Your task to perform on an android device: open chrome and create a bookmark for the current page Image 0: 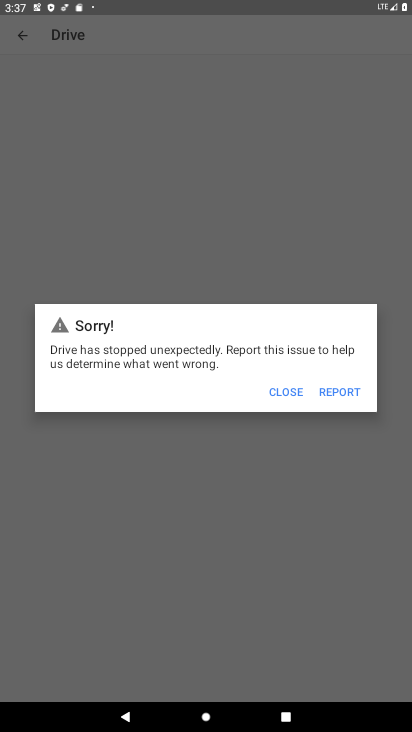
Step 0: press home button
Your task to perform on an android device: open chrome and create a bookmark for the current page Image 1: 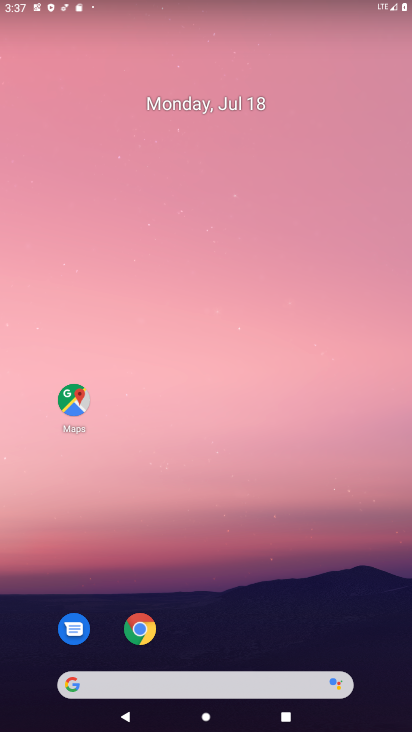
Step 1: click (136, 629)
Your task to perform on an android device: open chrome and create a bookmark for the current page Image 2: 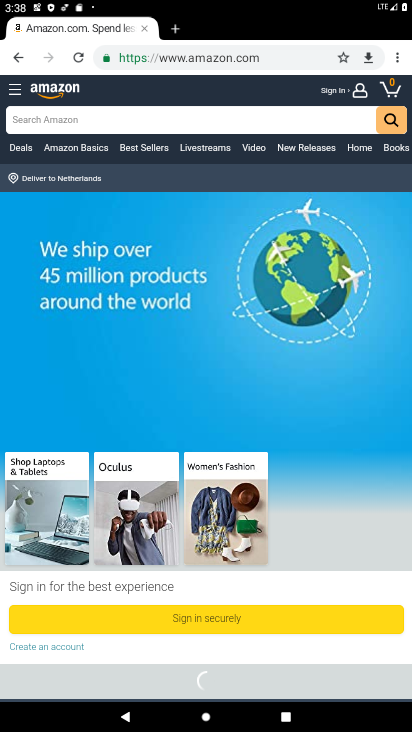
Step 2: click (344, 51)
Your task to perform on an android device: open chrome and create a bookmark for the current page Image 3: 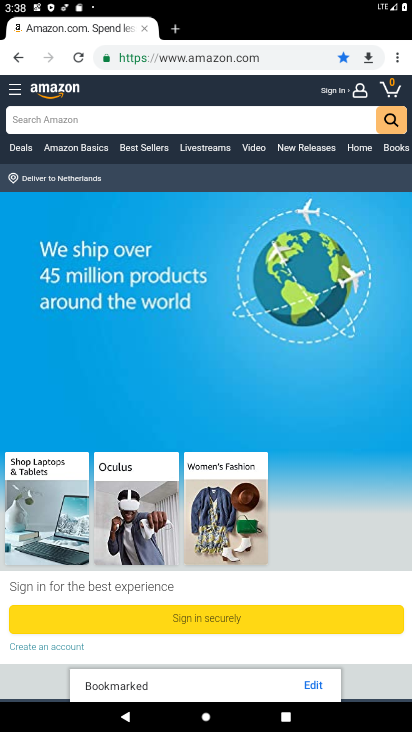
Step 3: task complete